Your task to perform on an android device: Open Youtube and go to the subscriptions tab Image 0: 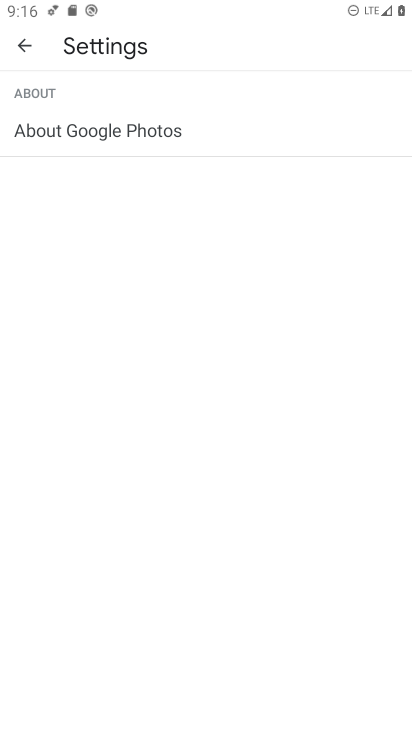
Step 0: press home button
Your task to perform on an android device: Open Youtube and go to the subscriptions tab Image 1: 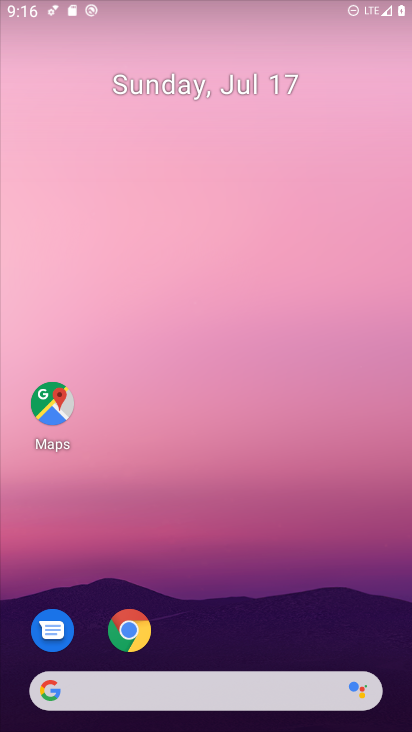
Step 1: drag from (216, 642) to (220, 288)
Your task to perform on an android device: Open Youtube and go to the subscriptions tab Image 2: 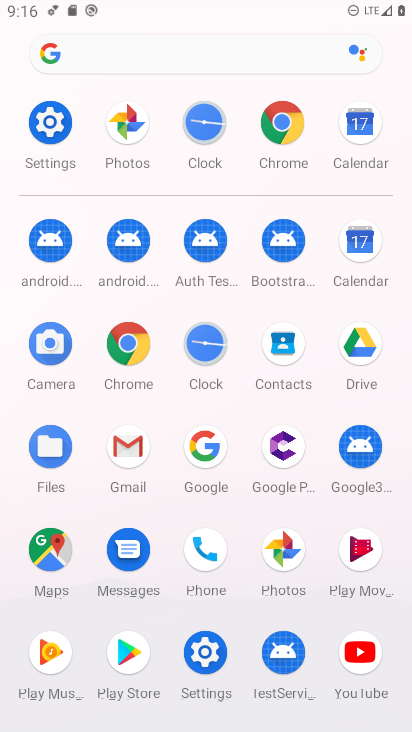
Step 2: click (356, 641)
Your task to perform on an android device: Open Youtube and go to the subscriptions tab Image 3: 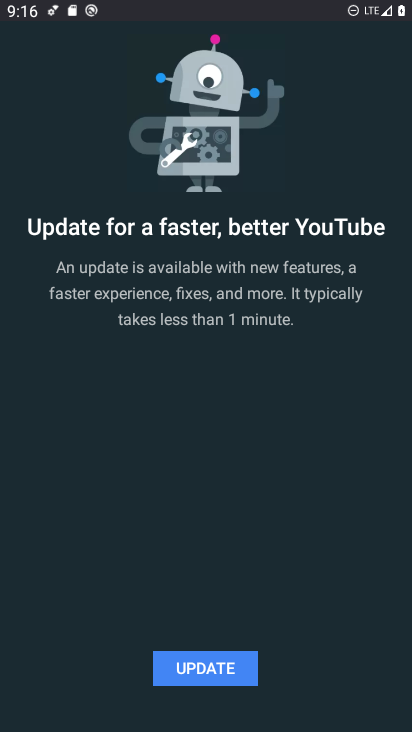
Step 3: task complete